Your task to perform on an android device: Open accessibility settings Image 0: 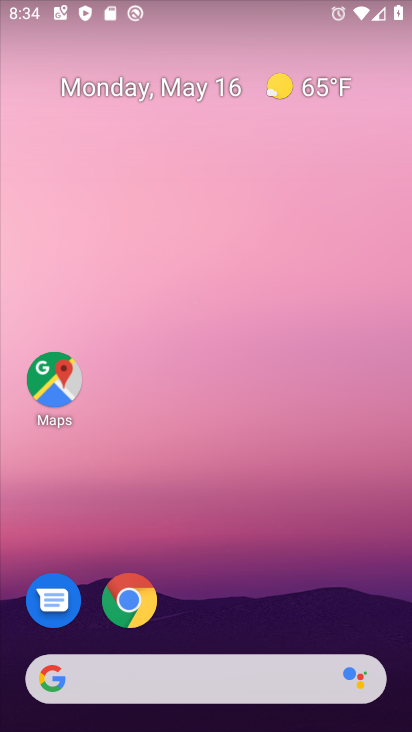
Step 0: drag from (183, 634) to (255, 277)
Your task to perform on an android device: Open accessibility settings Image 1: 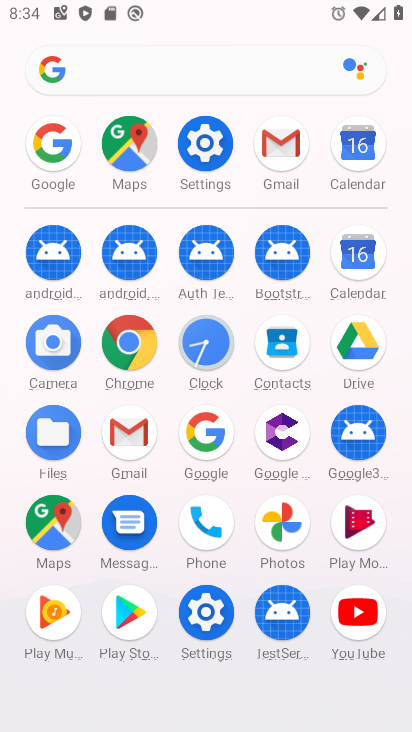
Step 1: click (201, 610)
Your task to perform on an android device: Open accessibility settings Image 2: 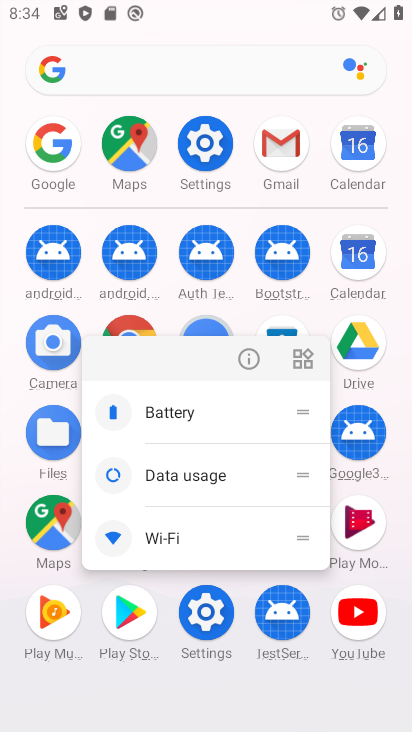
Step 2: click (252, 346)
Your task to perform on an android device: Open accessibility settings Image 3: 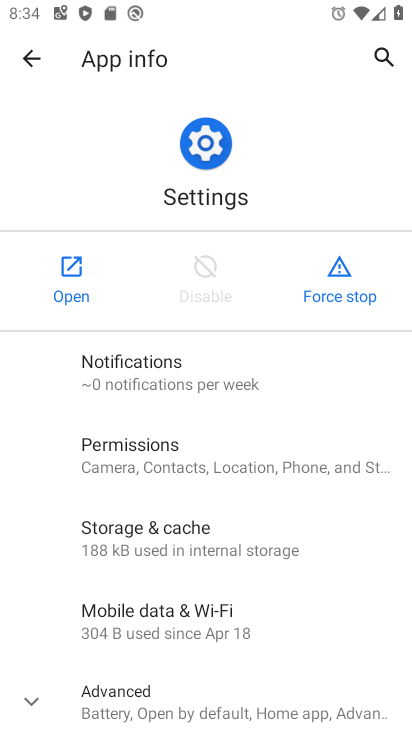
Step 3: click (79, 271)
Your task to perform on an android device: Open accessibility settings Image 4: 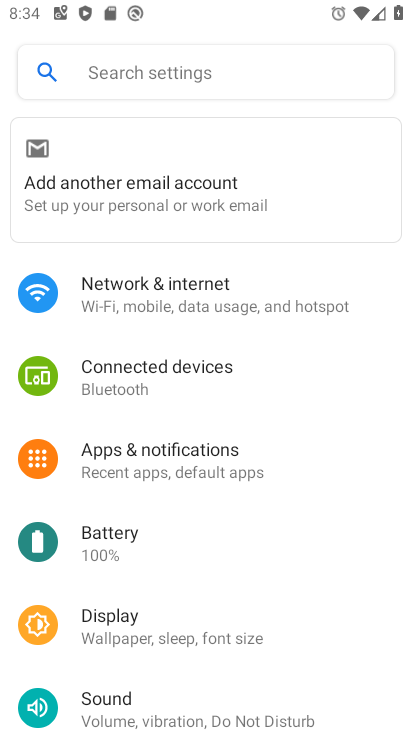
Step 4: drag from (228, 645) to (310, 107)
Your task to perform on an android device: Open accessibility settings Image 5: 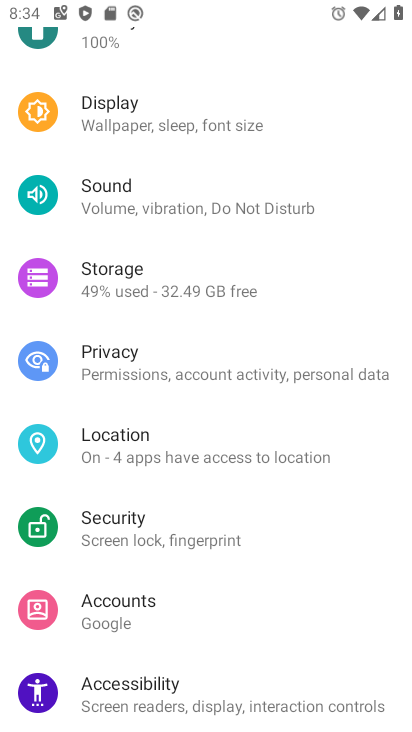
Step 5: click (142, 687)
Your task to perform on an android device: Open accessibility settings Image 6: 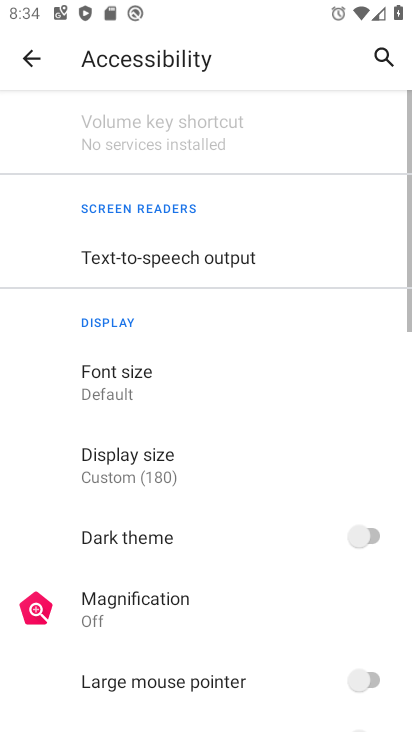
Step 6: task complete